Your task to perform on an android device: open wifi settings Image 0: 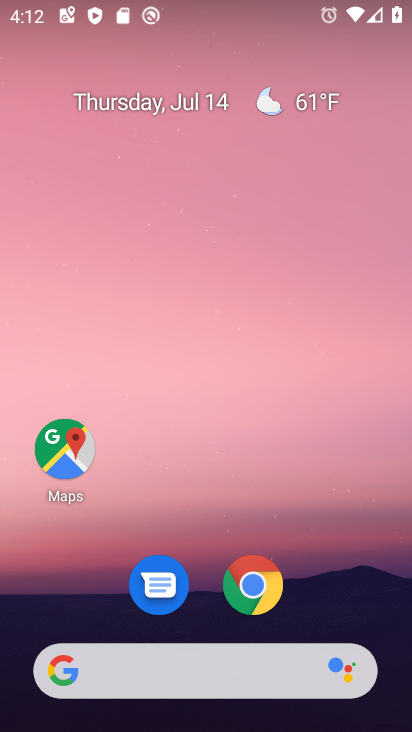
Step 0: drag from (330, 528) to (331, 19)
Your task to perform on an android device: open wifi settings Image 1: 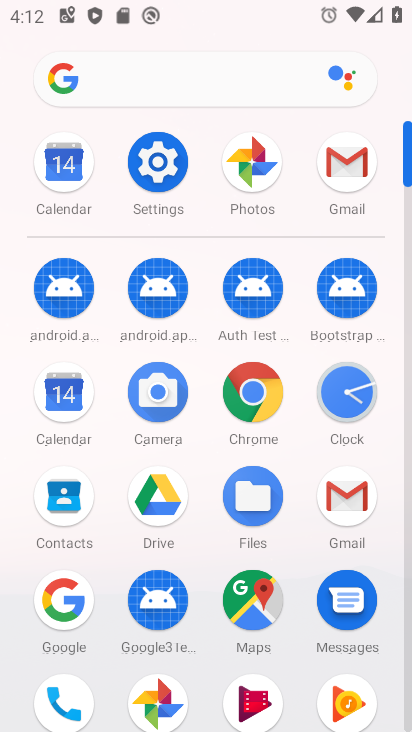
Step 1: click (162, 170)
Your task to perform on an android device: open wifi settings Image 2: 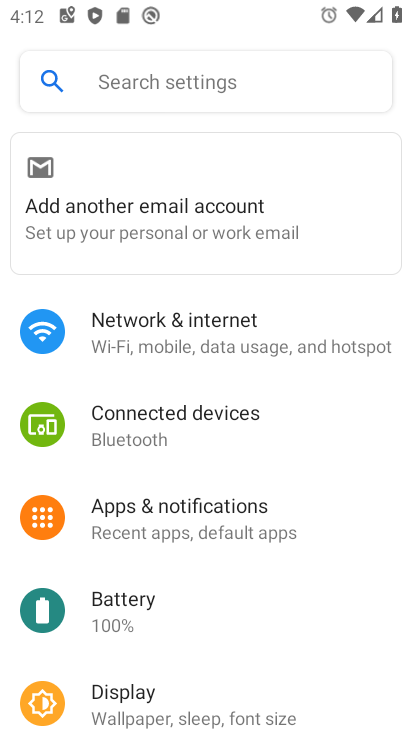
Step 2: click (172, 336)
Your task to perform on an android device: open wifi settings Image 3: 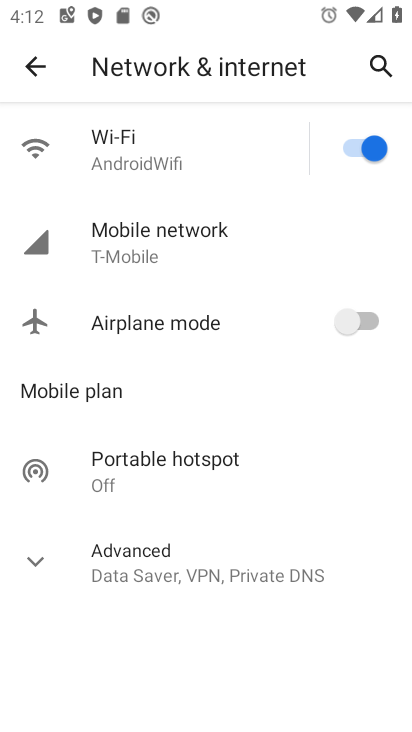
Step 3: click (148, 159)
Your task to perform on an android device: open wifi settings Image 4: 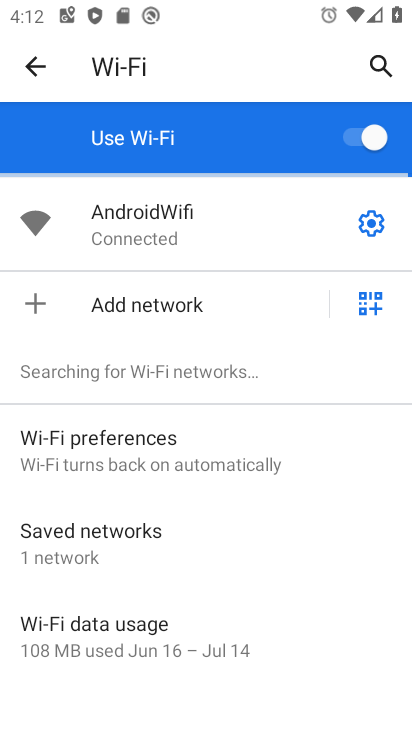
Step 4: task complete